Your task to perform on an android device: Open Chrome and go to settings Image 0: 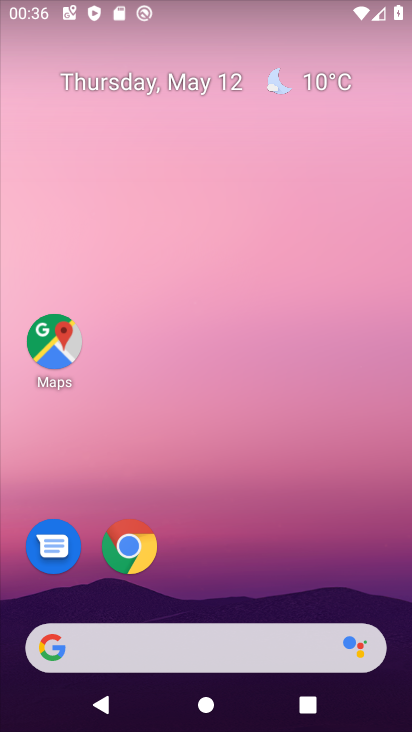
Step 0: click (123, 545)
Your task to perform on an android device: Open Chrome and go to settings Image 1: 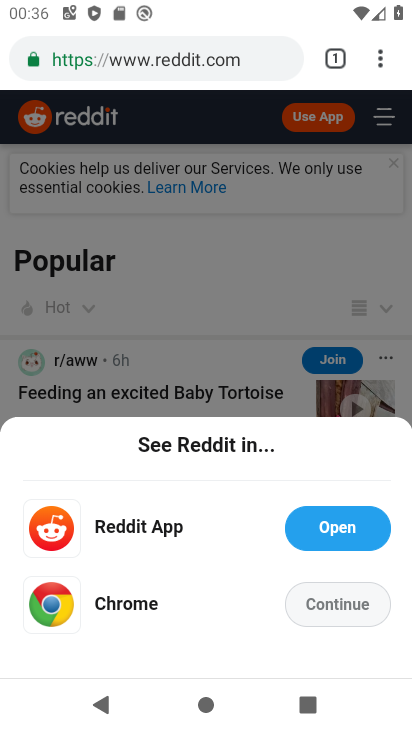
Step 1: press home button
Your task to perform on an android device: Open Chrome and go to settings Image 2: 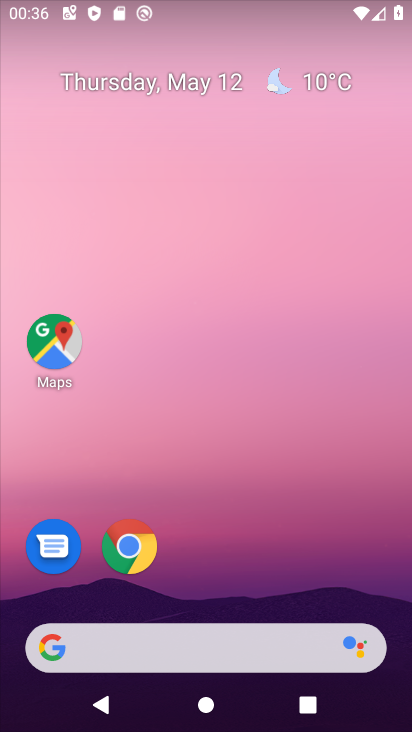
Step 2: click (128, 548)
Your task to perform on an android device: Open Chrome and go to settings Image 3: 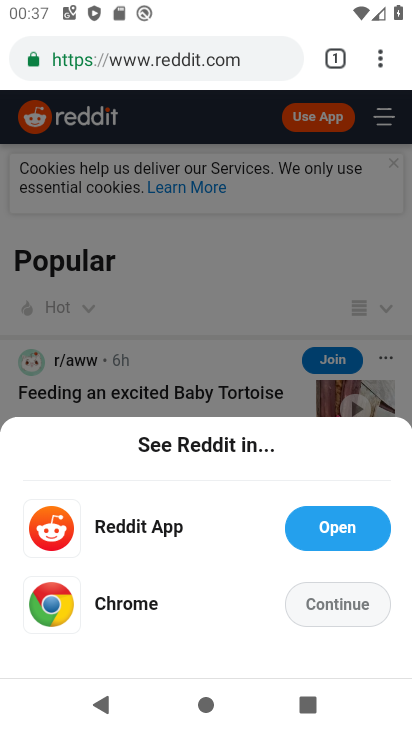
Step 3: click (146, 55)
Your task to perform on an android device: Open Chrome and go to settings Image 4: 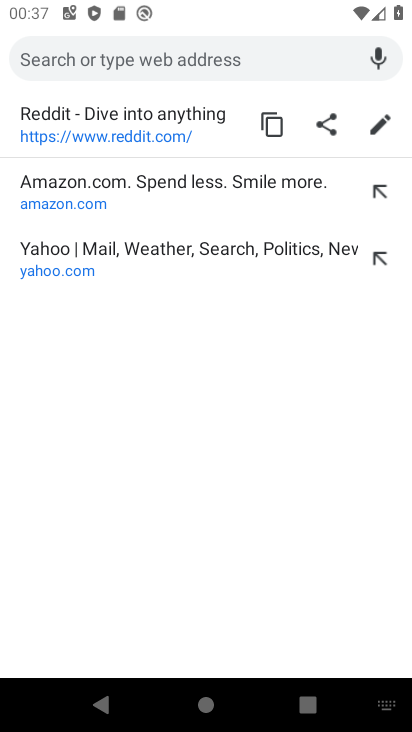
Step 4: click (87, 395)
Your task to perform on an android device: Open Chrome and go to settings Image 5: 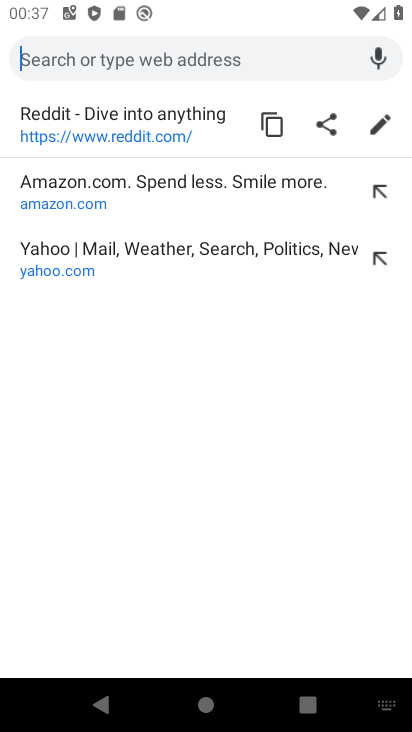
Step 5: click (94, 706)
Your task to perform on an android device: Open Chrome and go to settings Image 6: 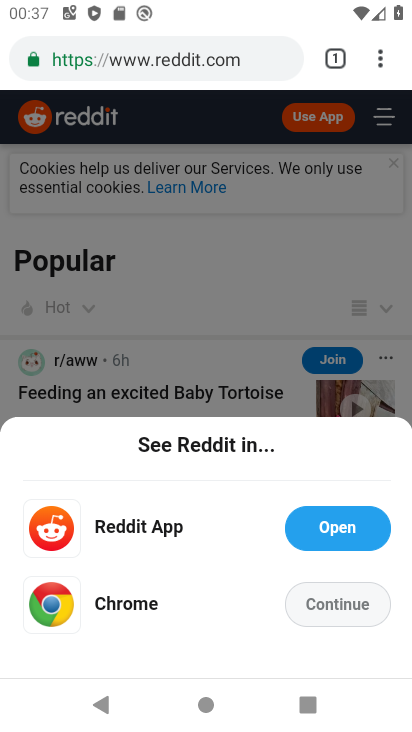
Step 6: click (376, 61)
Your task to perform on an android device: Open Chrome and go to settings Image 7: 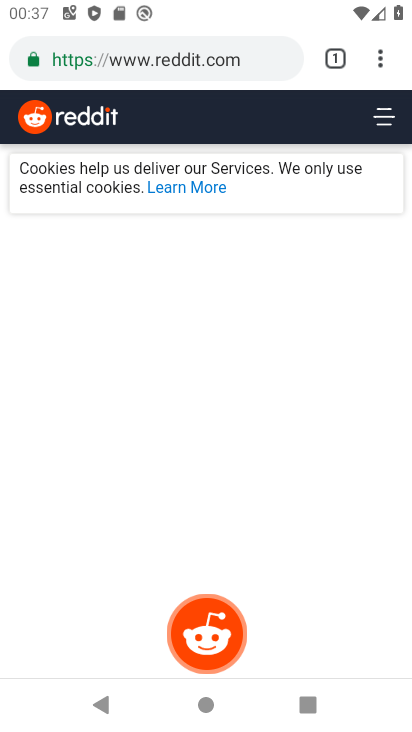
Step 7: click (381, 62)
Your task to perform on an android device: Open Chrome and go to settings Image 8: 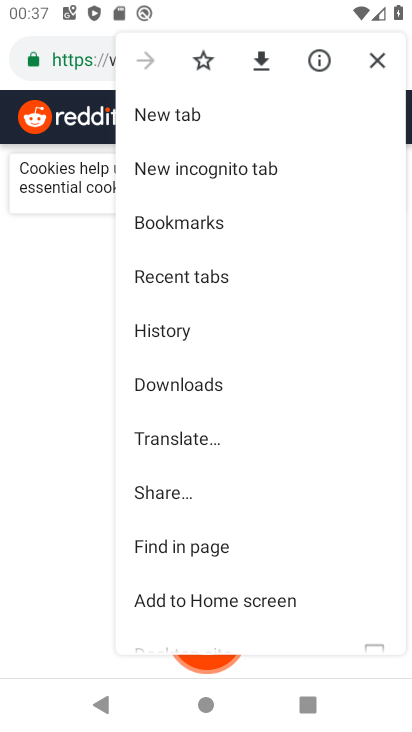
Step 8: drag from (235, 519) to (294, 174)
Your task to perform on an android device: Open Chrome and go to settings Image 9: 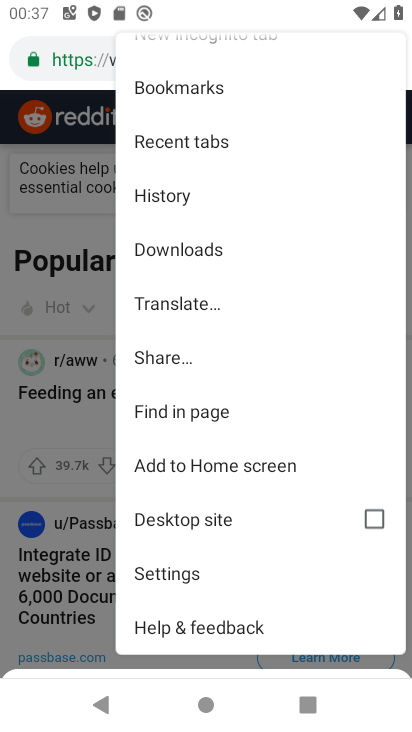
Step 9: click (178, 573)
Your task to perform on an android device: Open Chrome and go to settings Image 10: 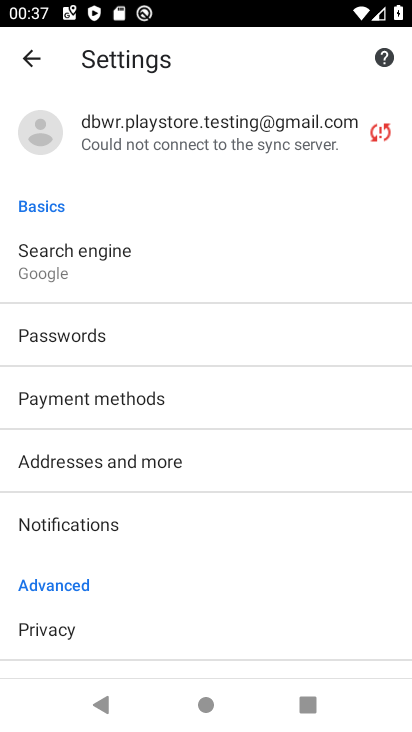
Step 10: task complete